Your task to perform on an android device: see tabs open on other devices in the chrome app Image 0: 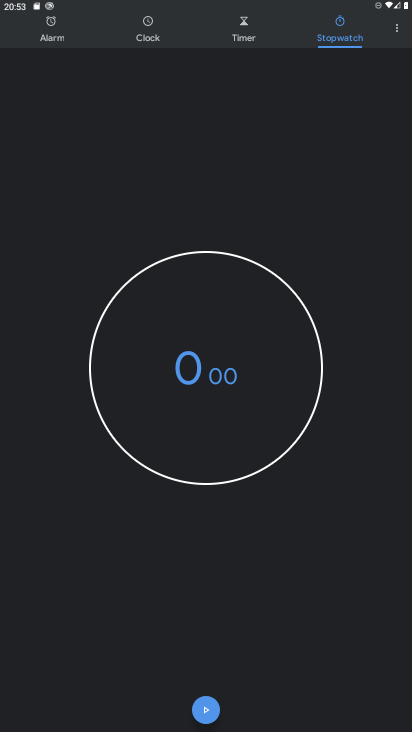
Step 0: press home button
Your task to perform on an android device: see tabs open on other devices in the chrome app Image 1: 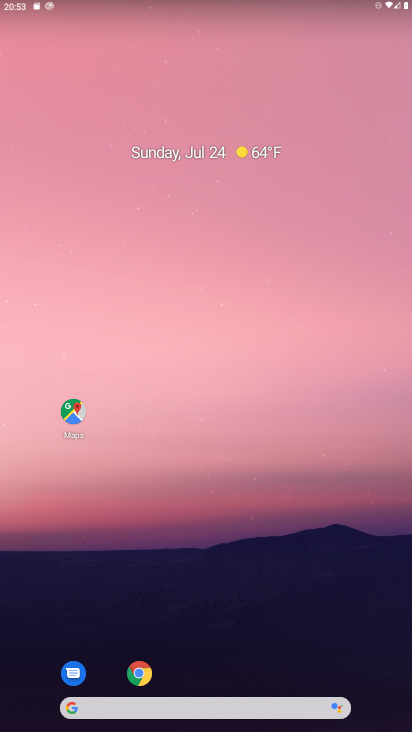
Step 1: click (148, 678)
Your task to perform on an android device: see tabs open on other devices in the chrome app Image 2: 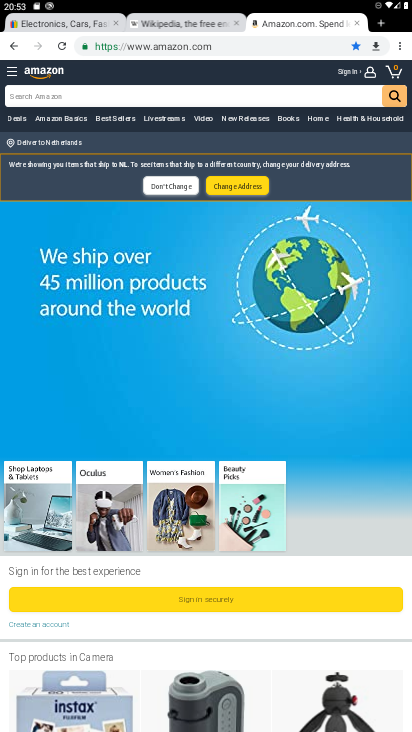
Step 2: click (399, 38)
Your task to perform on an android device: see tabs open on other devices in the chrome app Image 3: 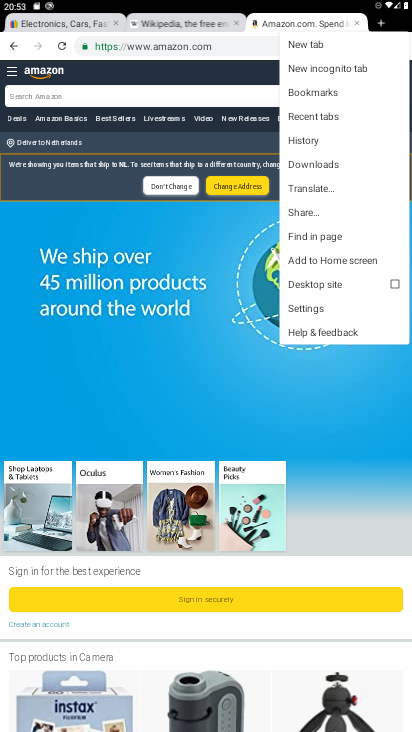
Step 3: click (319, 119)
Your task to perform on an android device: see tabs open on other devices in the chrome app Image 4: 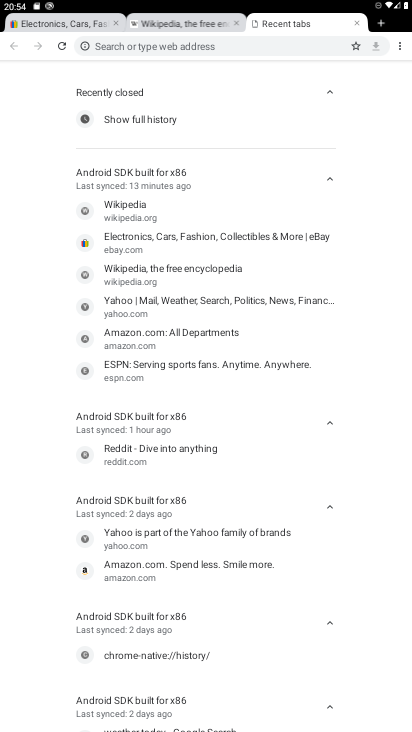
Step 4: task complete